Your task to perform on an android device: turn off sleep mode Image 0: 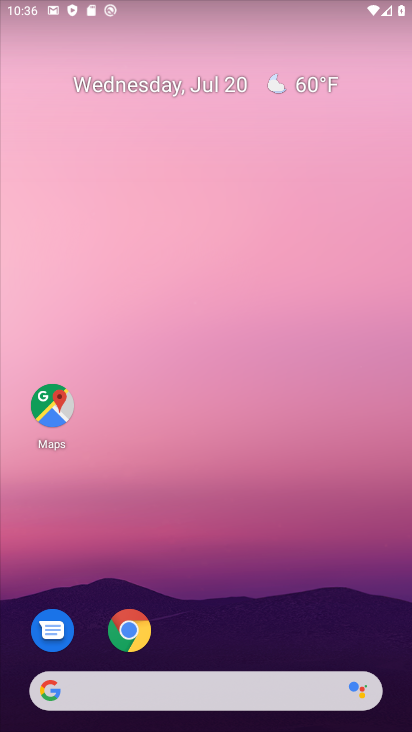
Step 0: drag from (207, 659) to (194, 50)
Your task to perform on an android device: turn off sleep mode Image 1: 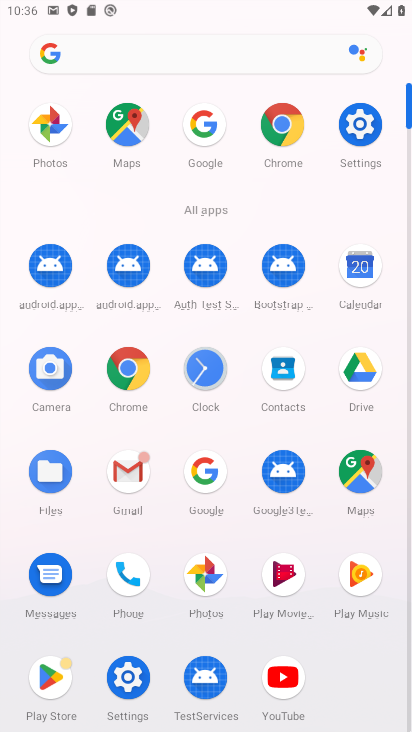
Step 1: click (357, 124)
Your task to perform on an android device: turn off sleep mode Image 2: 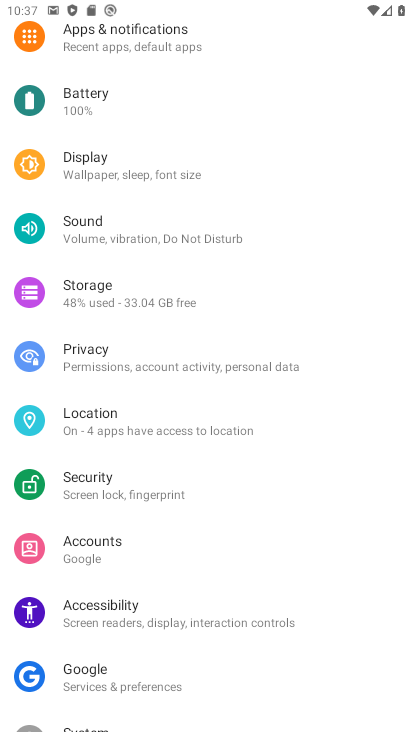
Step 2: click (78, 155)
Your task to perform on an android device: turn off sleep mode Image 3: 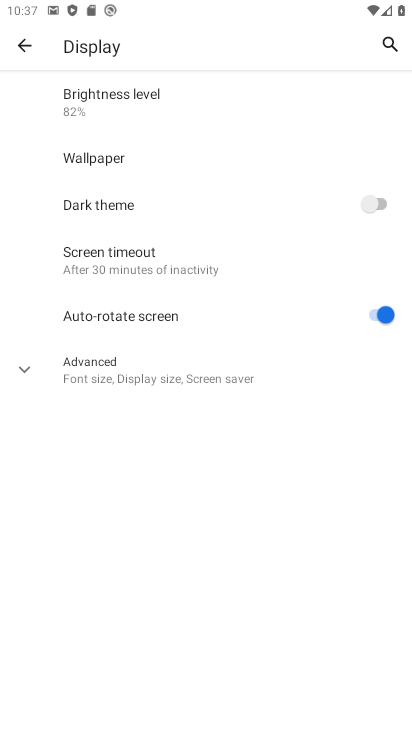
Step 3: click (160, 275)
Your task to perform on an android device: turn off sleep mode Image 4: 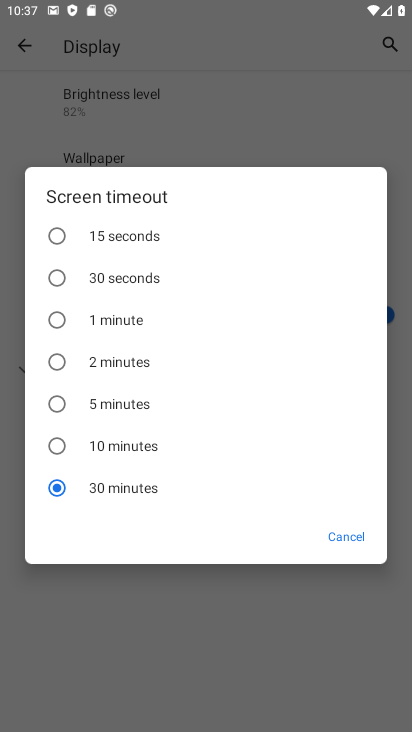
Step 4: task complete